Your task to perform on an android device: open app "Etsy: Buy & Sell Unique Items" (install if not already installed) and enter user name: "camp@inbox.com" and password: "unrelated" Image 0: 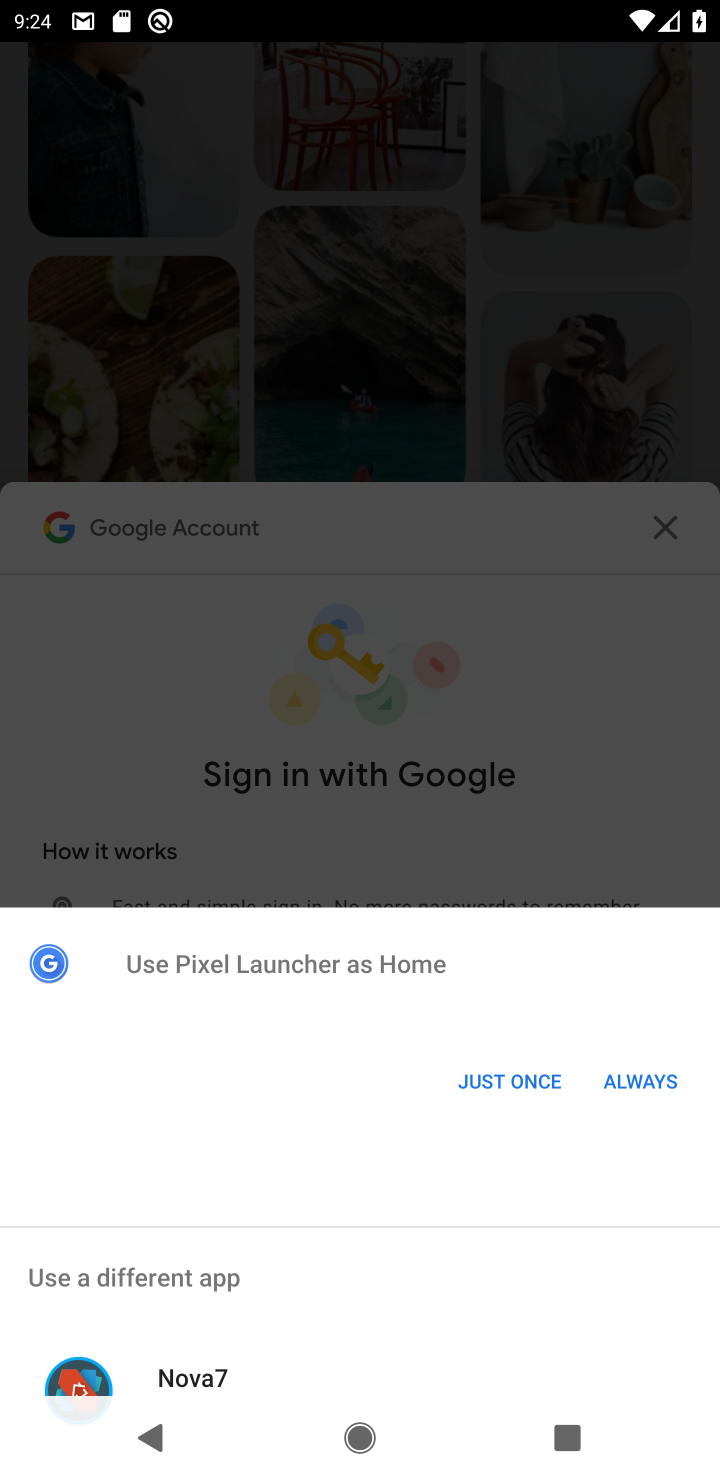
Step 0: press home button
Your task to perform on an android device: open app "Etsy: Buy & Sell Unique Items" (install if not already installed) and enter user name: "camp@inbox.com" and password: "unrelated" Image 1: 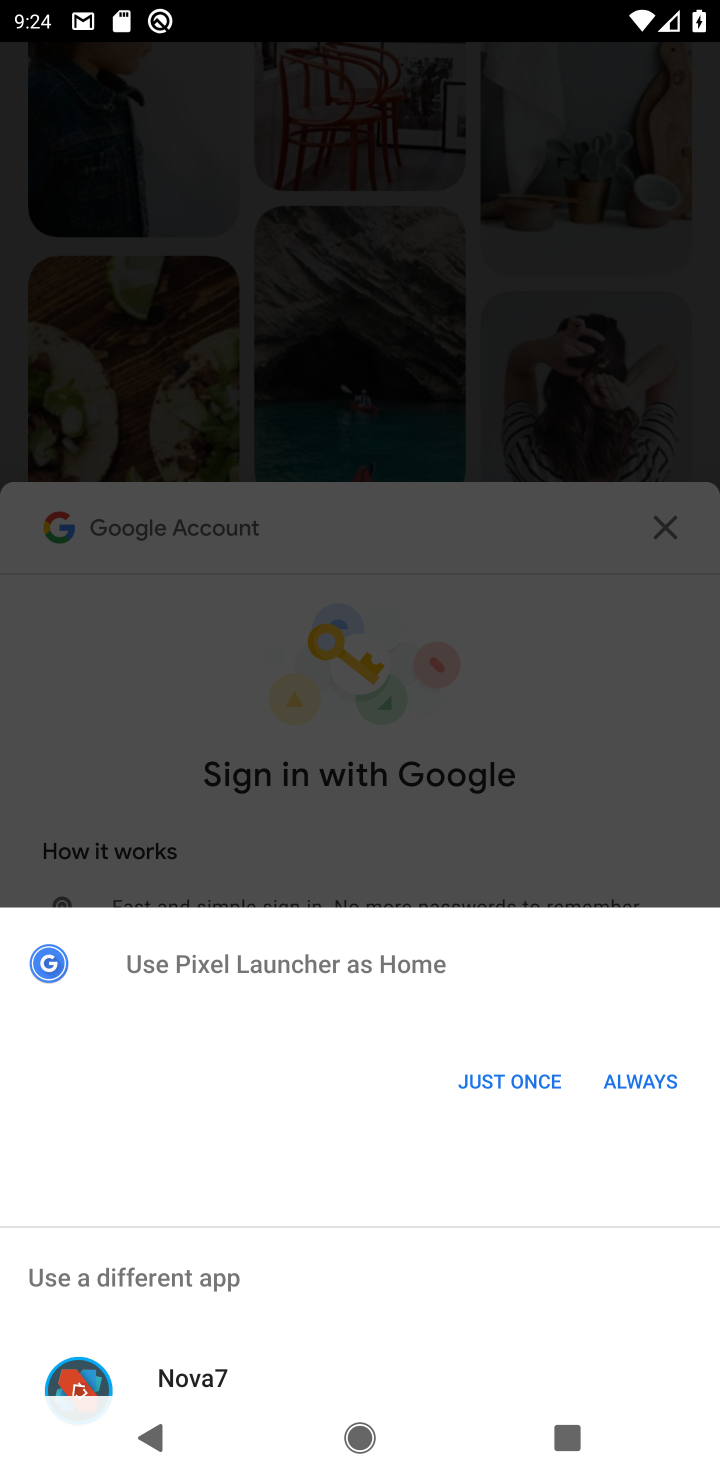
Step 1: press back button
Your task to perform on an android device: open app "Etsy: Buy & Sell Unique Items" (install if not already installed) and enter user name: "camp@inbox.com" and password: "unrelated" Image 2: 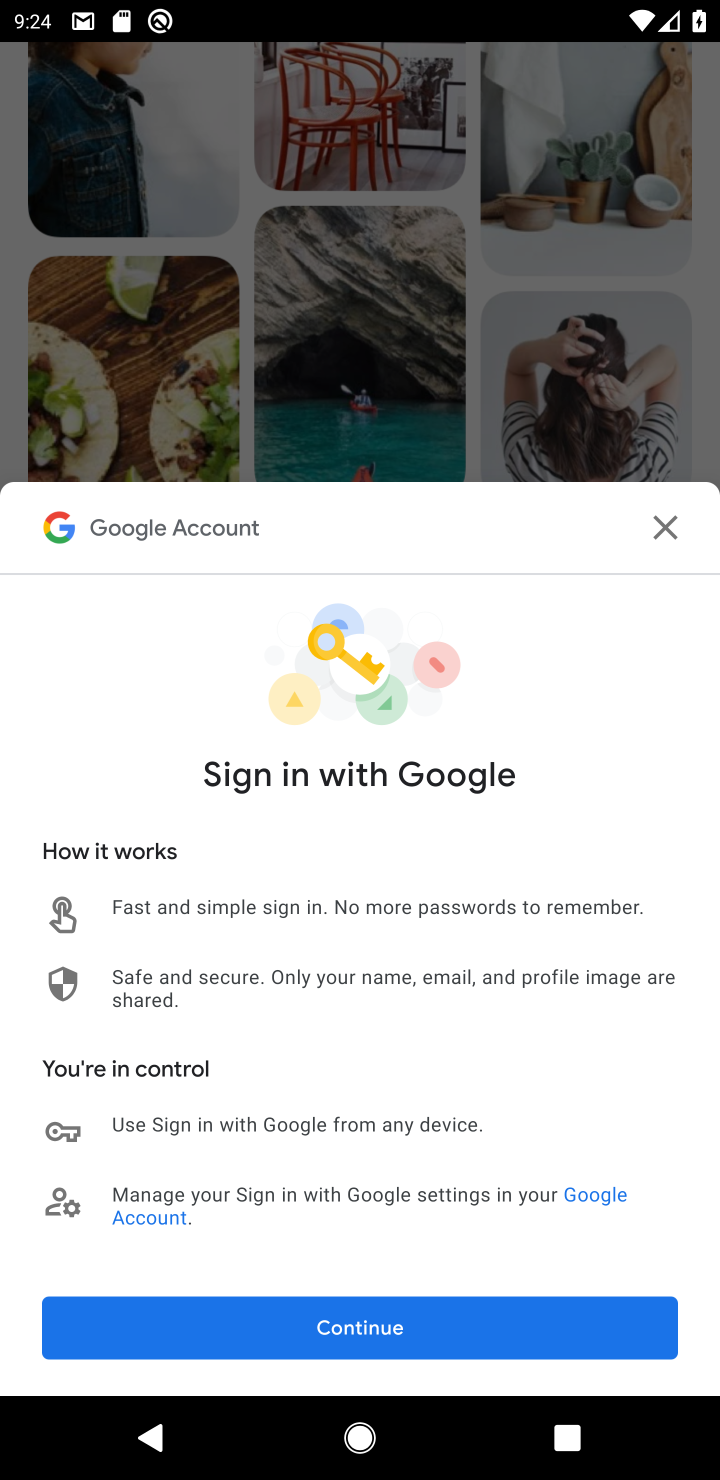
Step 2: press back button
Your task to perform on an android device: open app "Etsy: Buy & Sell Unique Items" (install if not already installed) and enter user name: "camp@inbox.com" and password: "unrelated" Image 3: 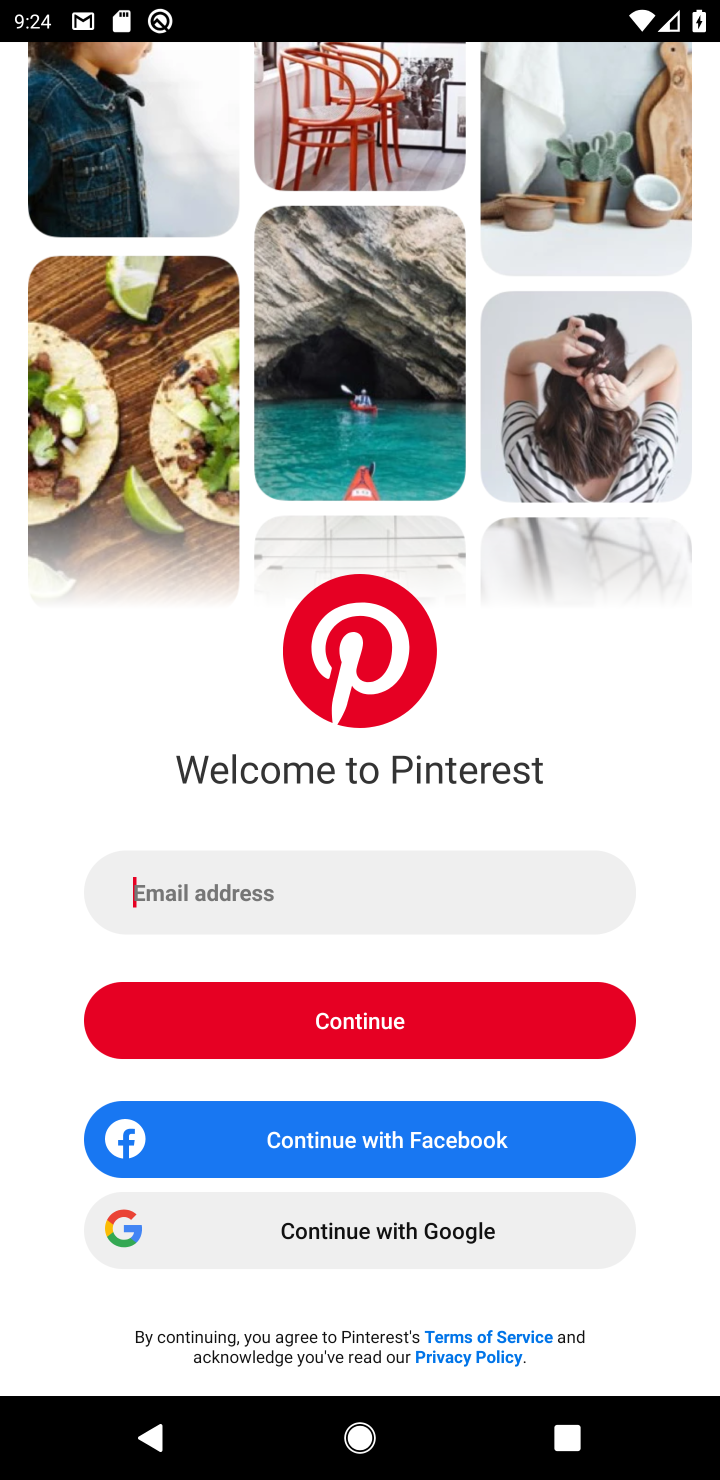
Step 3: press back button
Your task to perform on an android device: open app "Etsy: Buy & Sell Unique Items" (install if not already installed) and enter user name: "camp@inbox.com" and password: "unrelated" Image 4: 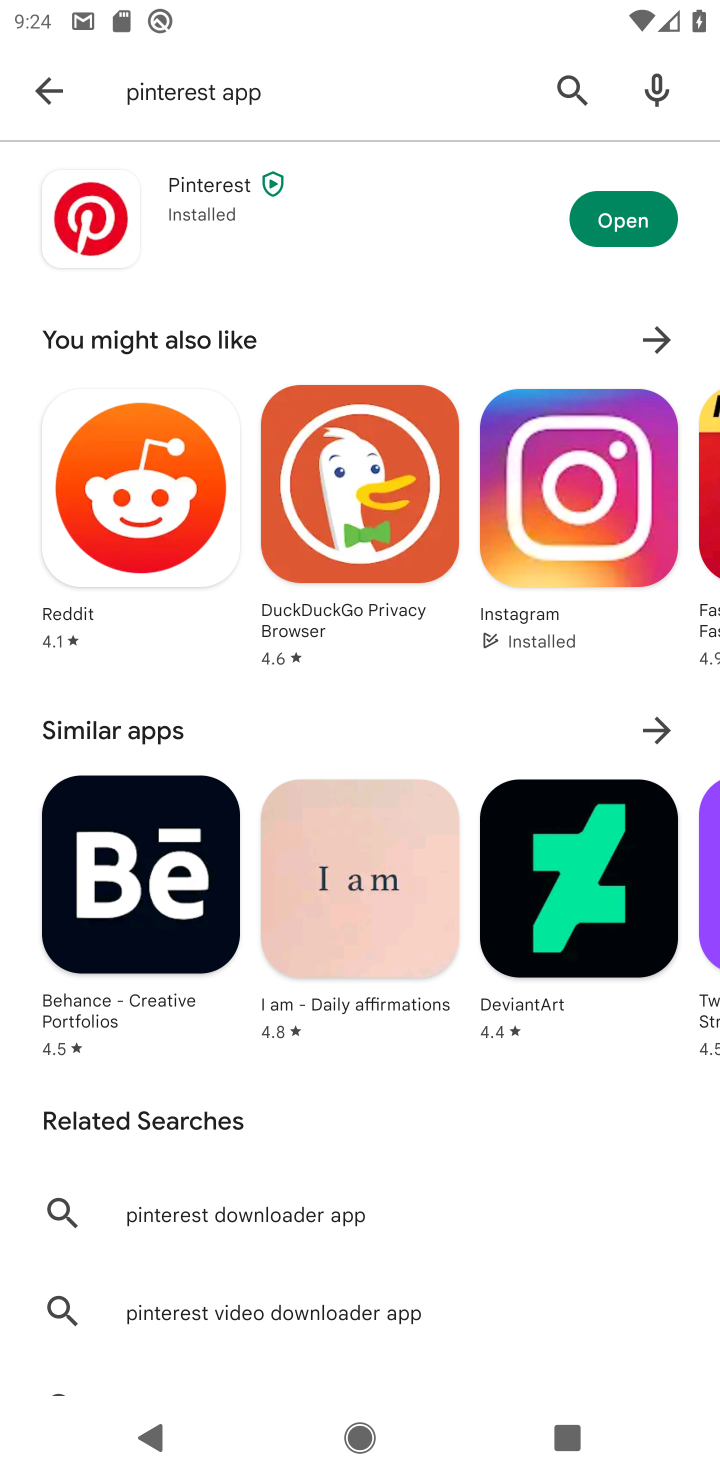
Step 4: click (575, 86)
Your task to perform on an android device: open app "Etsy: Buy & Sell Unique Items" (install if not already installed) and enter user name: "camp@inbox.com" and password: "unrelated" Image 5: 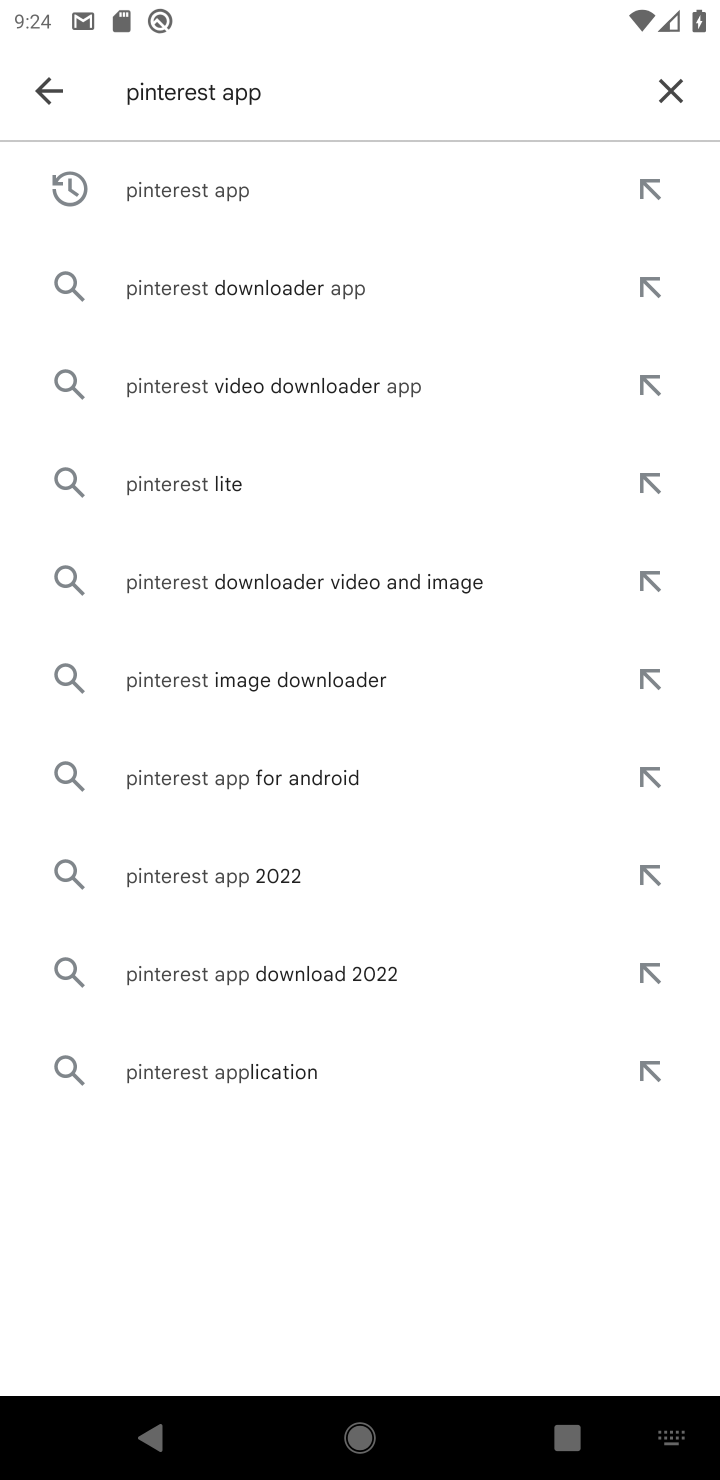
Step 5: click (685, 79)
Your task to perform on an android device: open app "Etsy: Buy & Sell Unique Items" (install if not already installed) and enter user name: "camp@inbox.com" and password: "unrelated" Image 6: 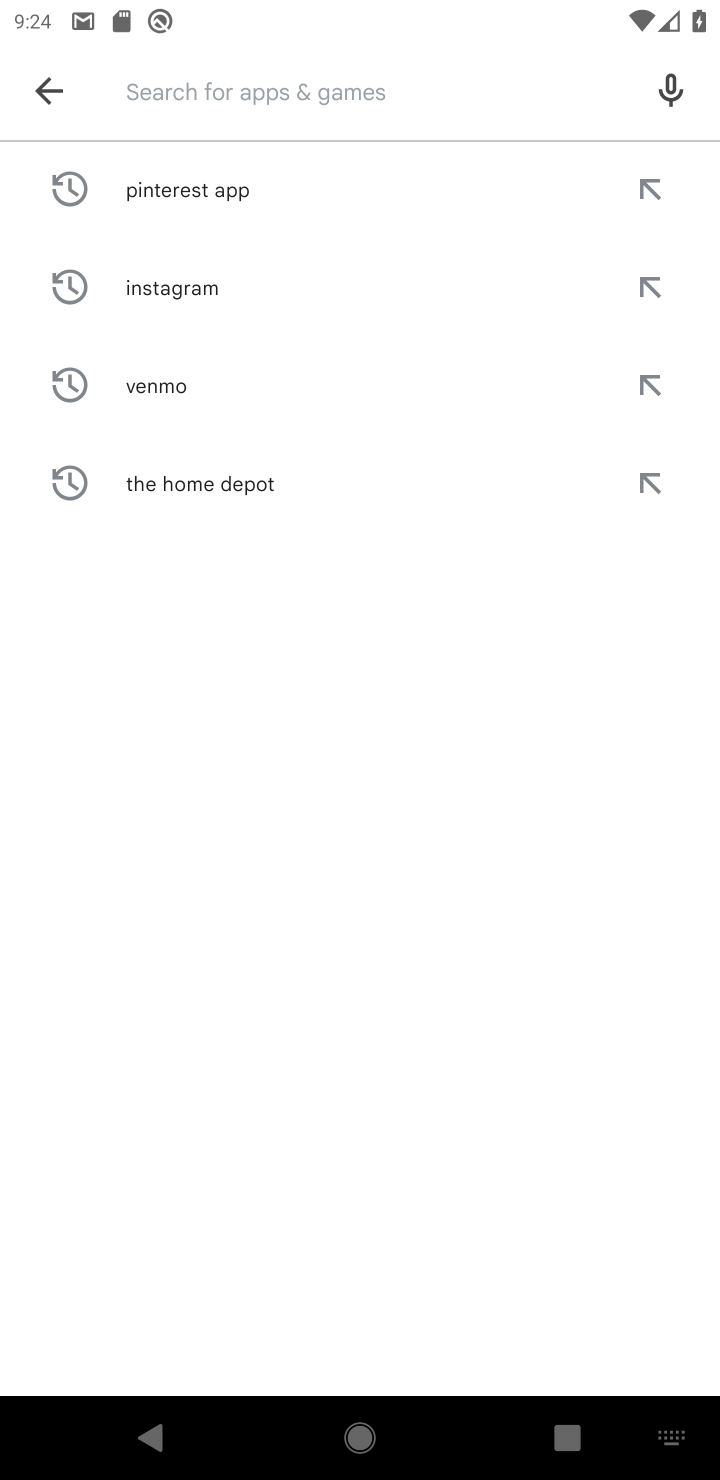
Step 6: type "Etsy: Buy & Sell Unique Items"
Your task to perform on an android device: open app "Etsy: Buy & Sell Unique Items" (install if not already installed) and enter user name: "camp@inbox.com" and password: "unrelated" Image 7: 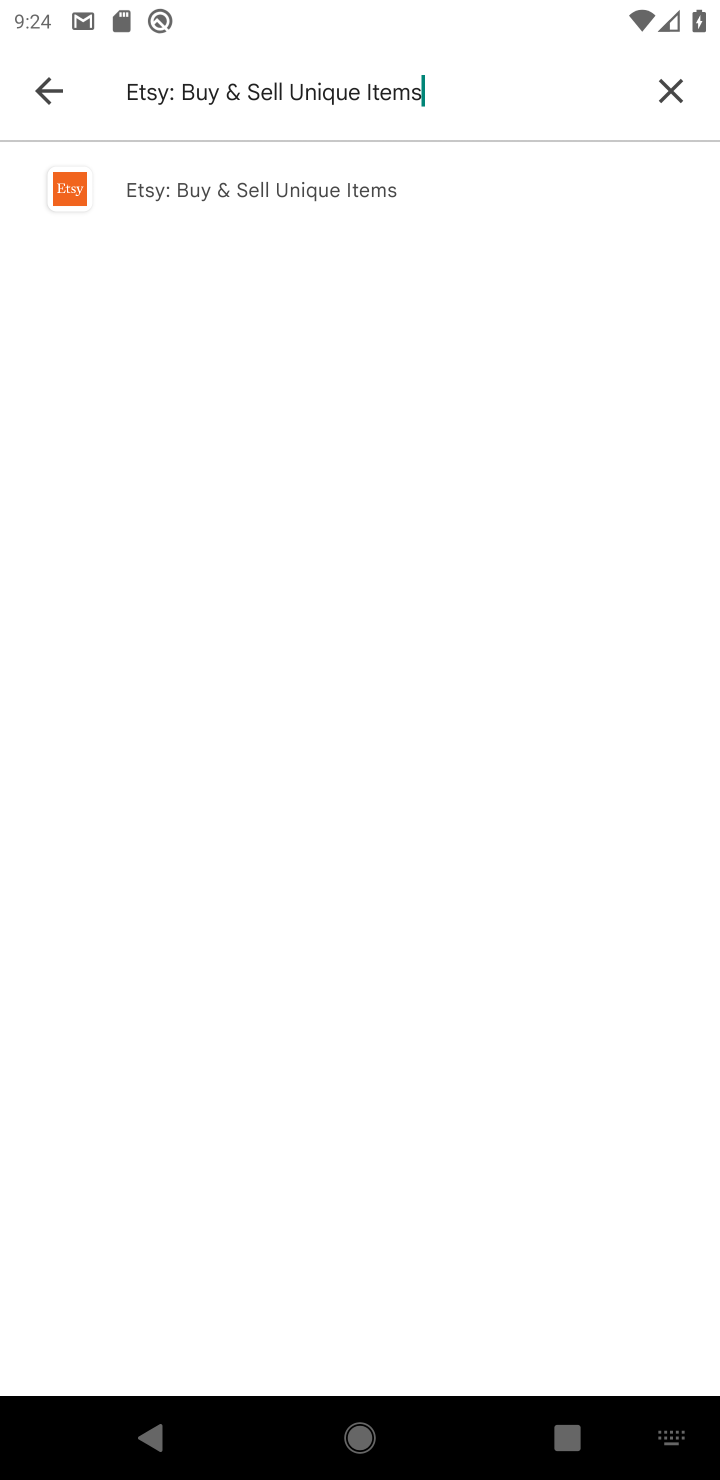
Step 7: click (391, 201)
Your task to perform on an android device: open app "Etsy: Buy & Sell Unique Items" (install if not already installed) and enter user name: "camp@inbox.com" and password: "unrelated" Image 8: 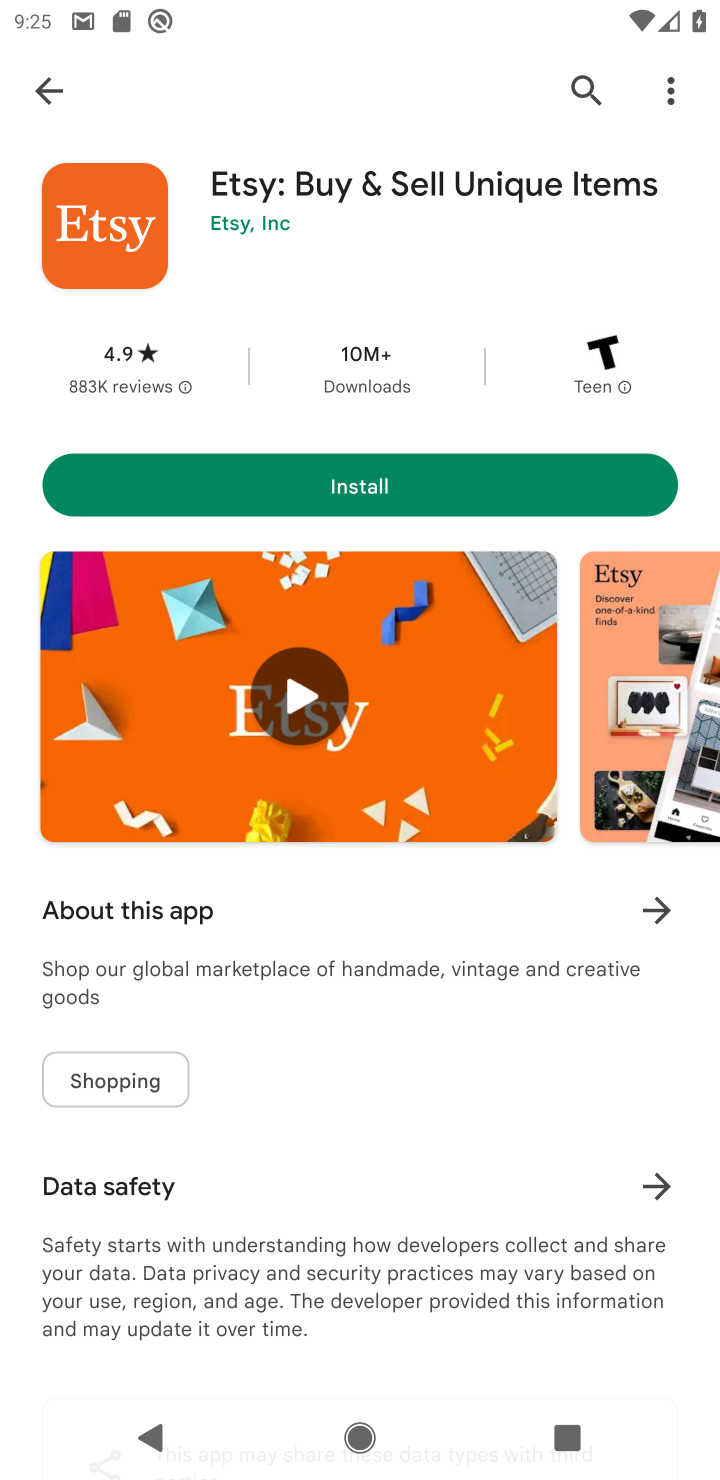
Step 8: click (514, 466)
Your task to perform on an android device: open app "Etsy: Buy & Sell Unique Items" (install if not already installed) and enter user name: "camp@inbox.com" and password: "unrelated" Image 9: 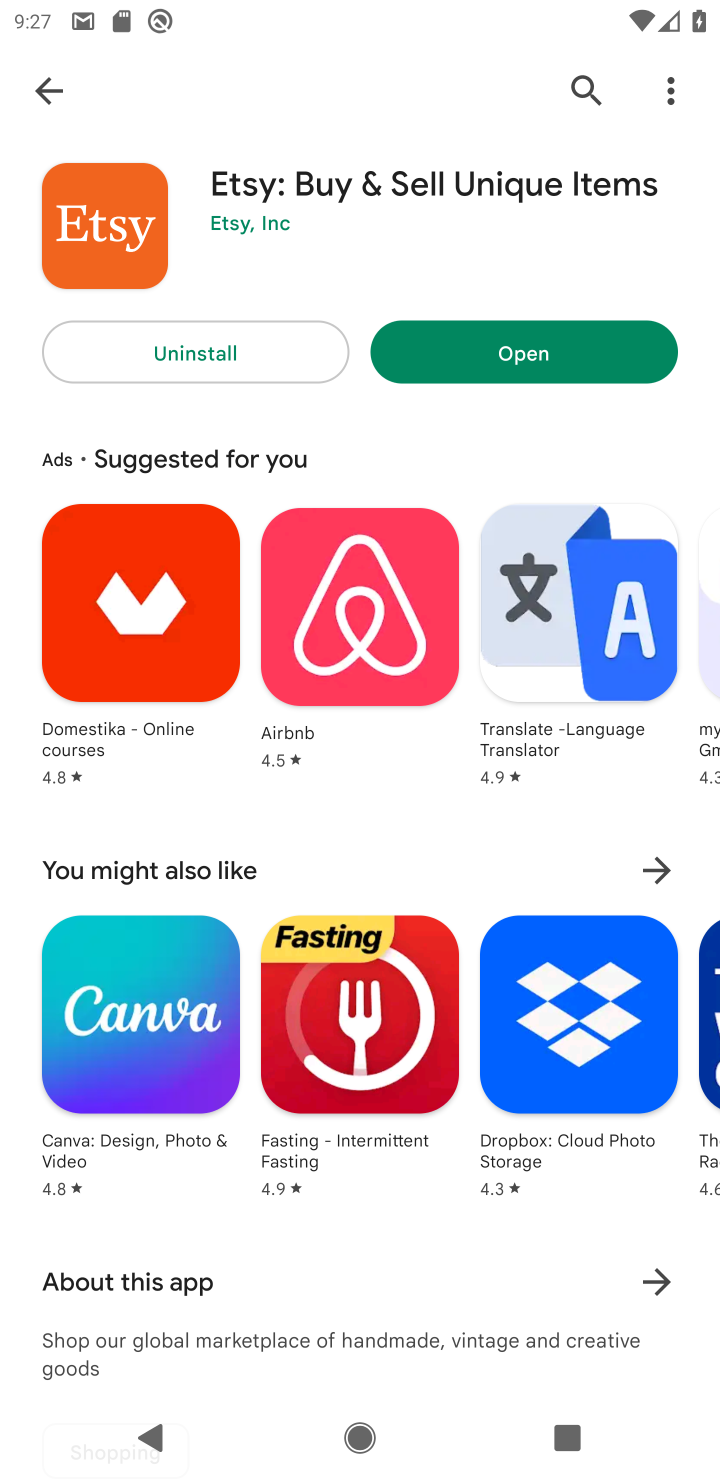
Step 9: click (568, 361)
Your task to perform on an android device: open app "Etsy: Buy & Sell Unique Items" (install if not already installed) and enter user name: "camp@inbox.com" and password: "unrelated" Image 10: 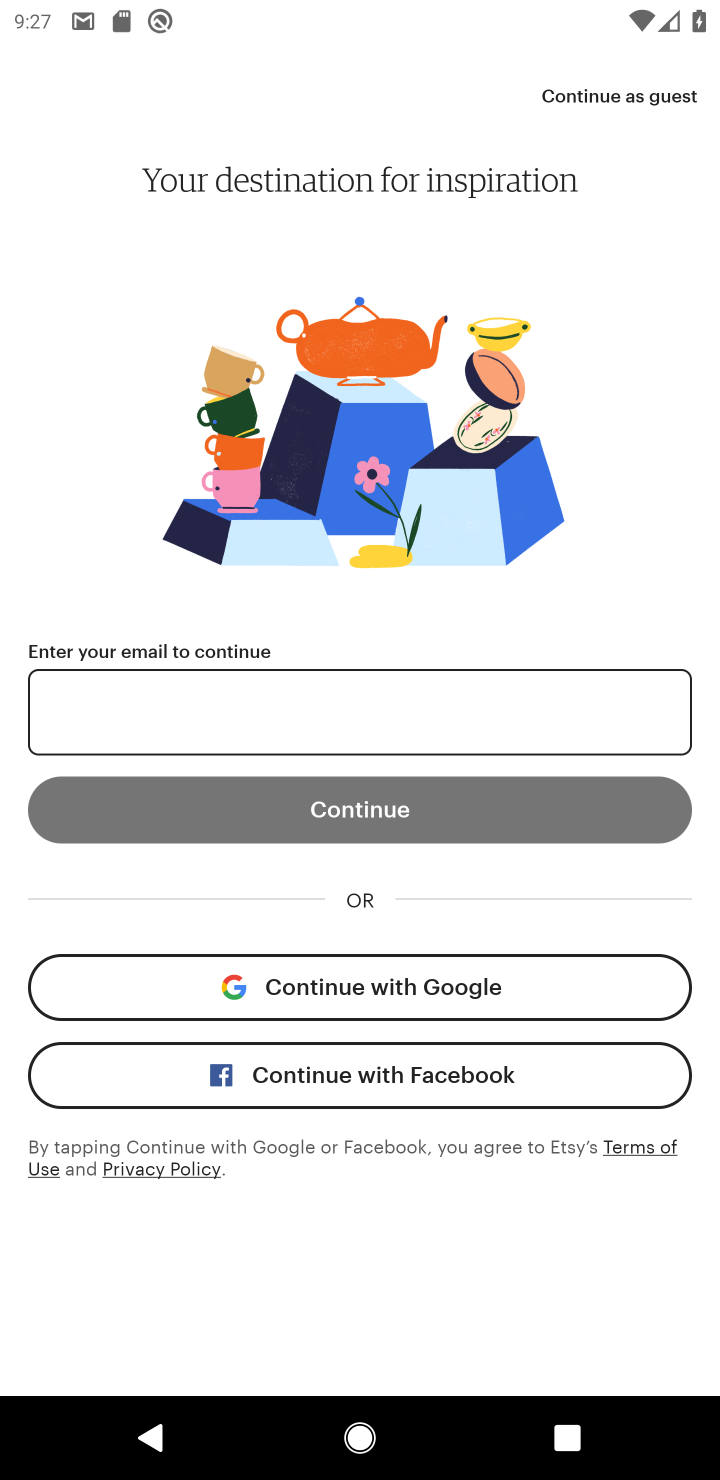
Step 10: type "camp@inbox.com"
Your task to perform on an android device: open app "Etsy: Buy & Sell Unique Items" (install if not already installed) and enter user name: "camp@inbox.com" and password: "unrelated" Image 11: 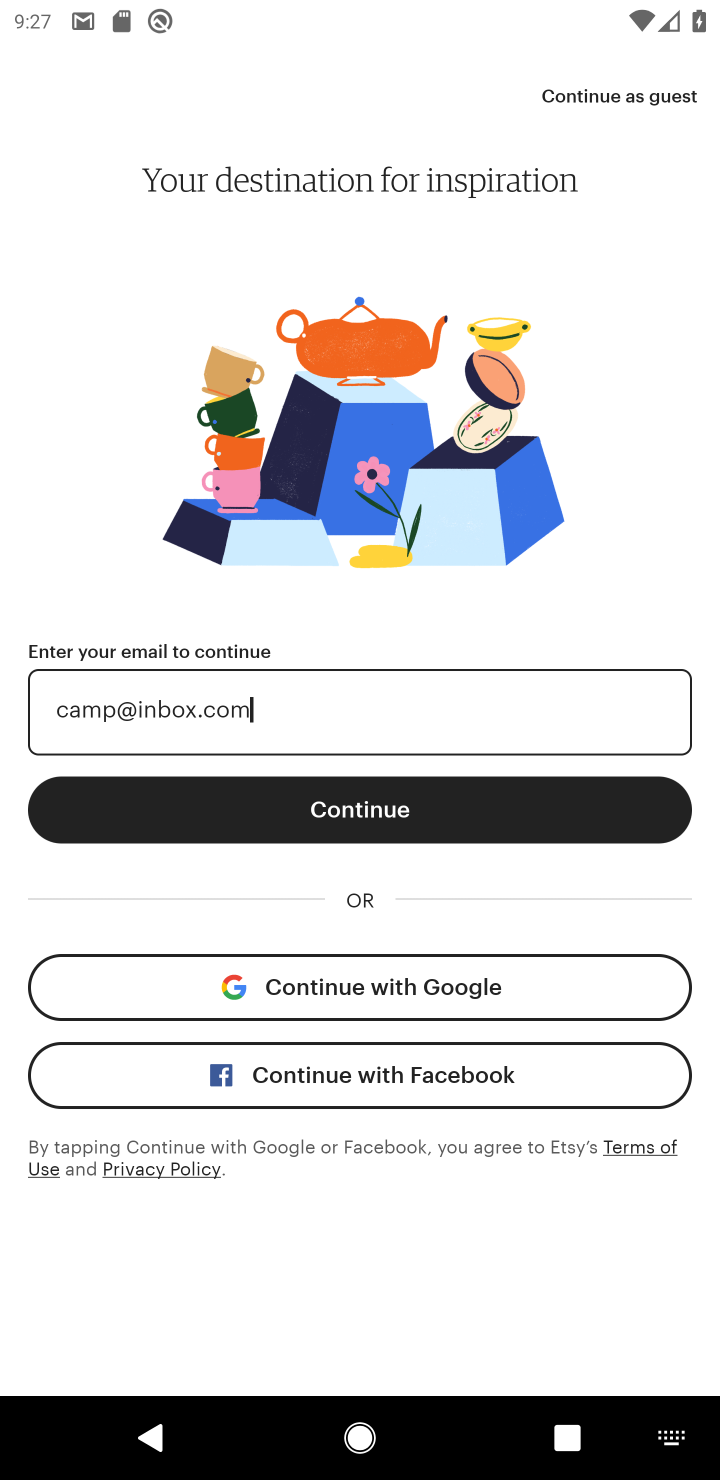
Step 11: click (555, 813)
Your task to perform on an android device: open app "Etsy: Buy & Sell Unique Items" (install if not already installed) and enter user name: "camp@inbox.com" and password: "unrelated" Image 12: 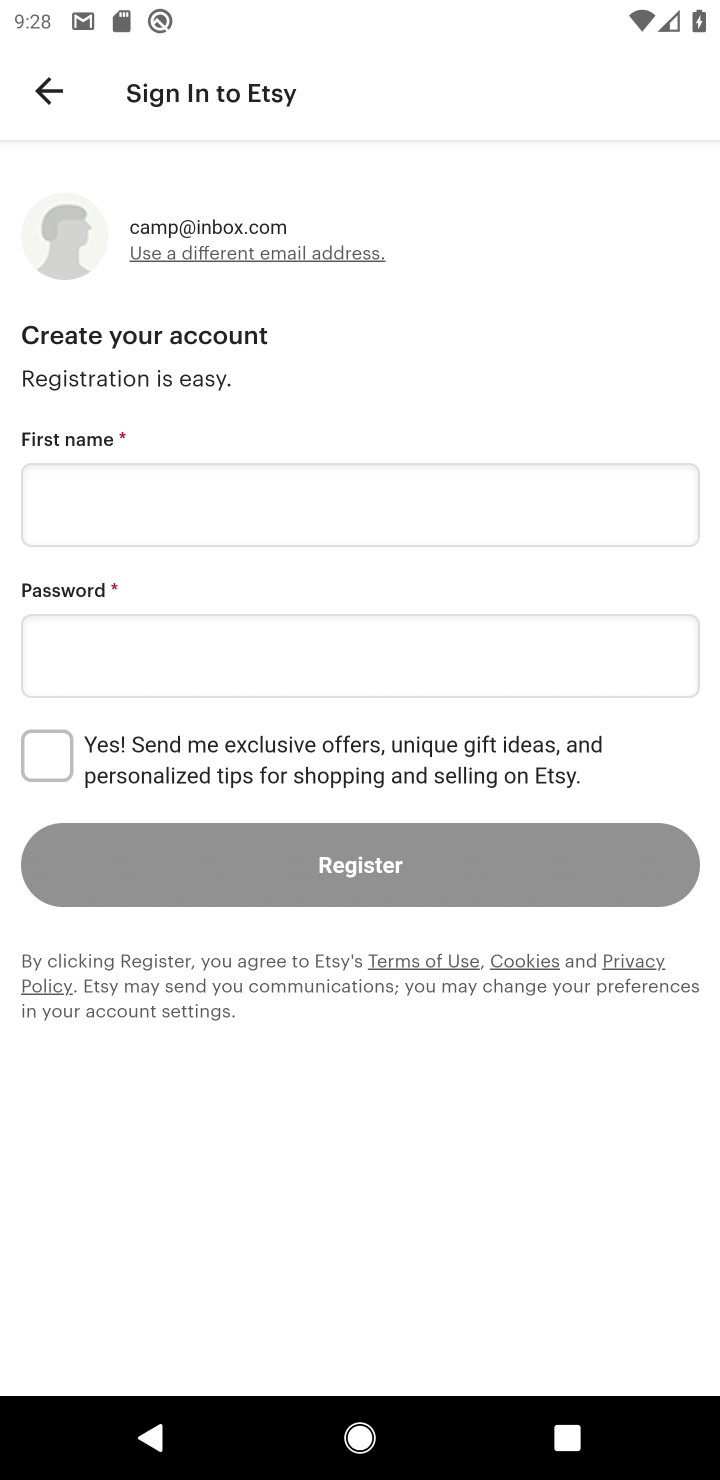
Step 12: click (182, 656)
Your task to perform on an android device: open app "Etsy: Buy & Sell Unique Items" (install if not already installed) and enter user name: "camp@inbox.com" and password: "unrelated" Image 13: 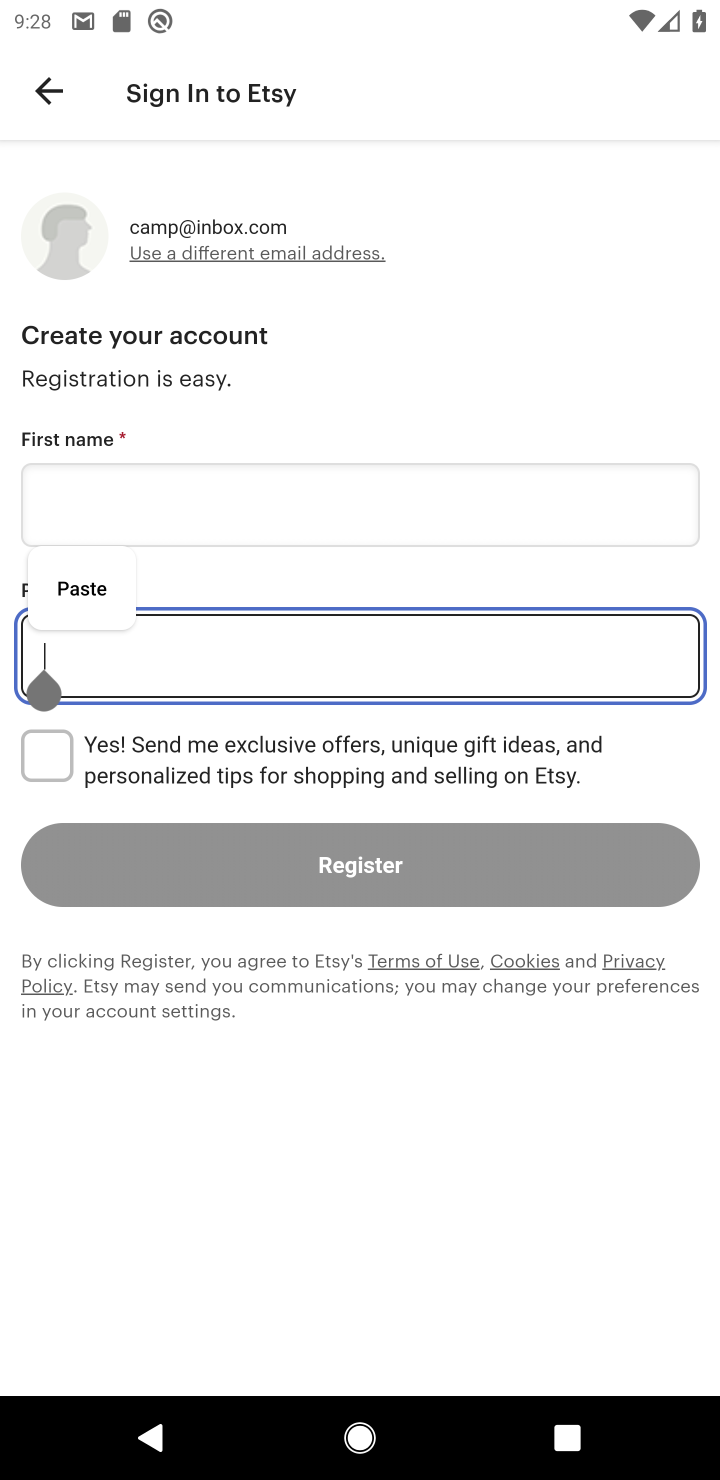
Step 13: type "unrelated"
Your task to perform on an android device: open app "Etsy: Buy & Sell Unique Items" (install if not already installed) and enter user name: "camp@inbox.com" and password: "unrelated" Image 14: 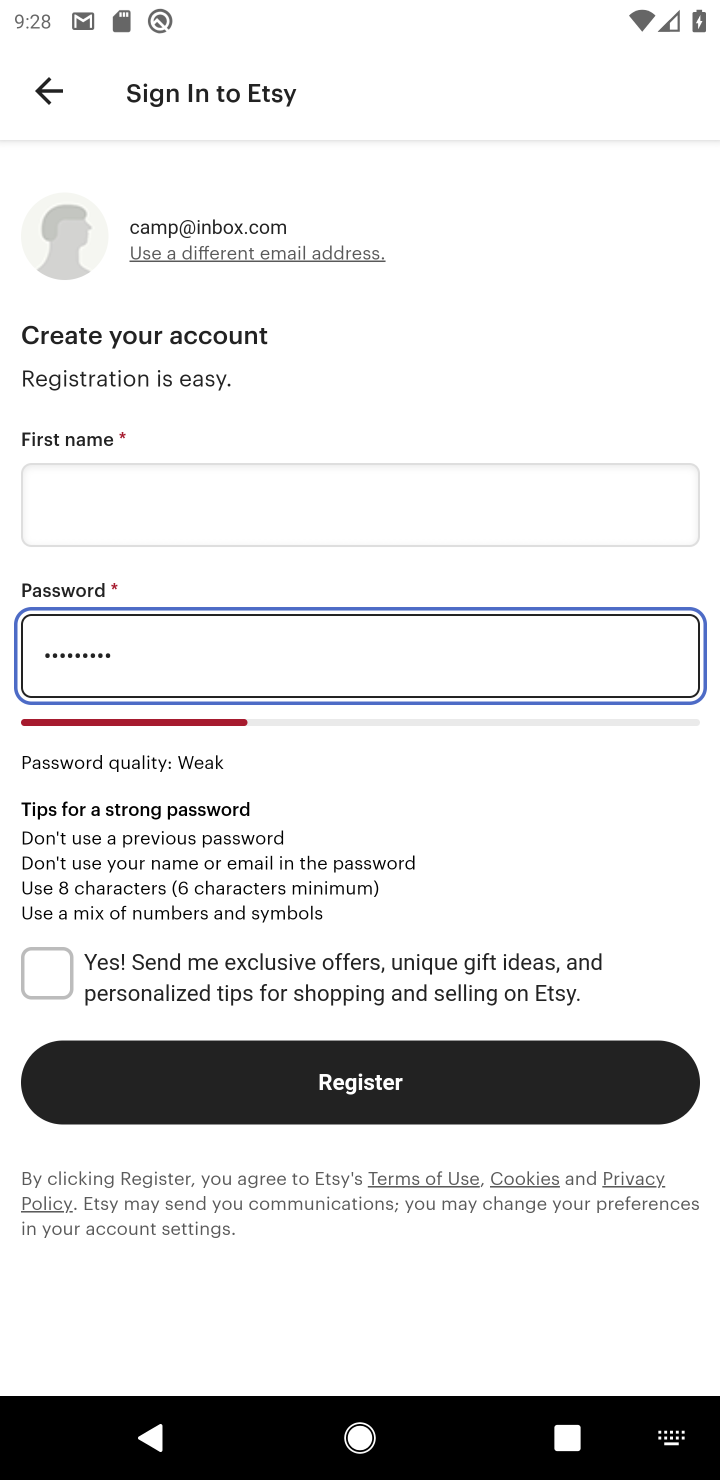
Step 14: task complete